Your task to perform on an android device: Go to Reddit.com Image 0: 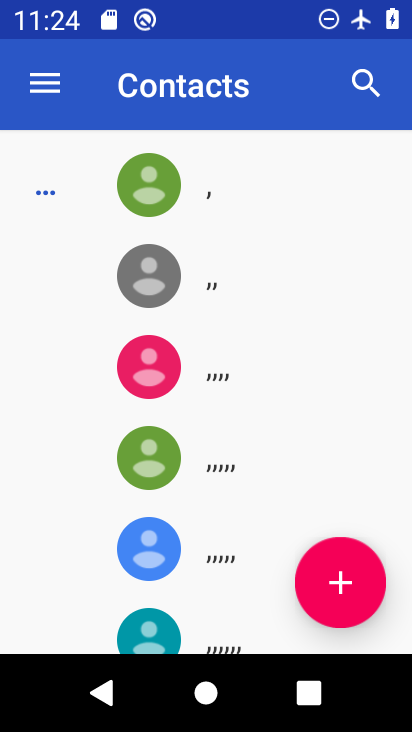
Step 0: press home button
Your task to perform on an android device: Go to Reddit.com Image 1: 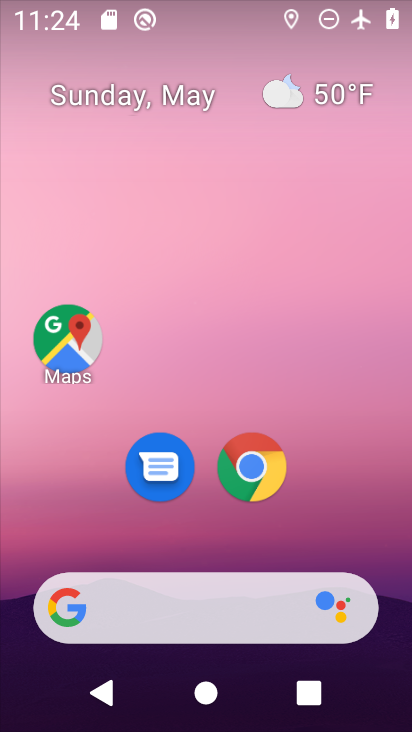
Step 1: click (240, 476)
Your task to perform on an android device: Go to Reddit.com Image 2: 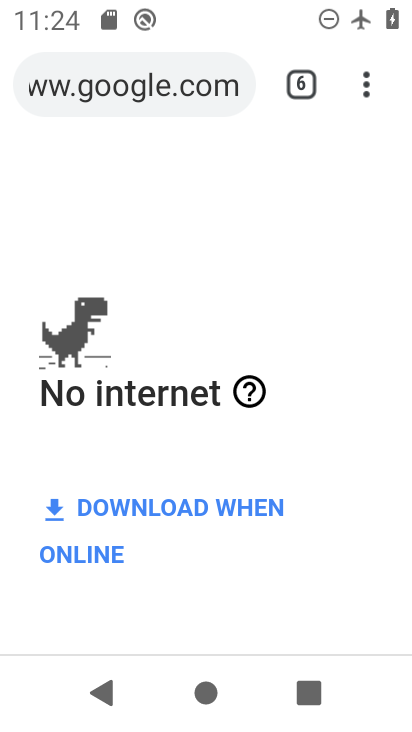
Step 2: click (289, 75)
Your task to perform on an android device: Go to Reddit.com Image 3: 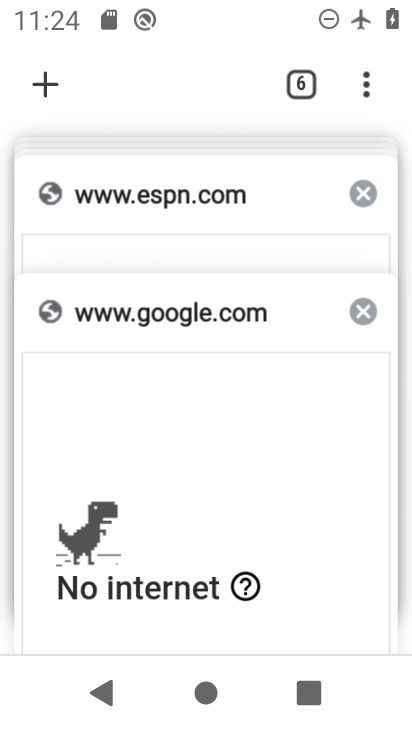
Step 3: click (354, 182)
Your task to perform on an android device: Go to Reddit.com Image 4: 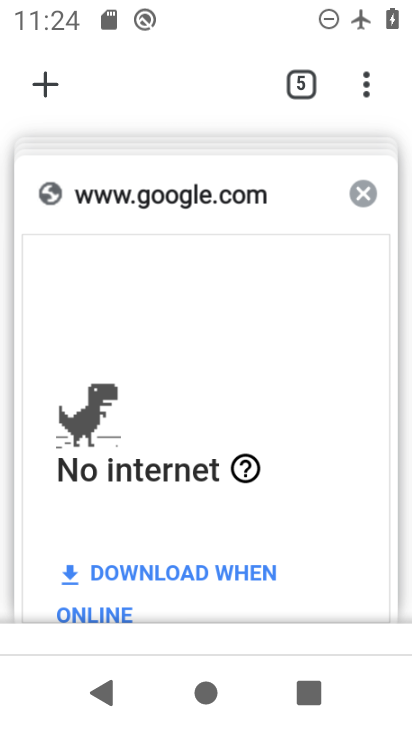
Step 4: click (354, 182)
Your task to perform on an android device: Go to Reddit.com Image 5: 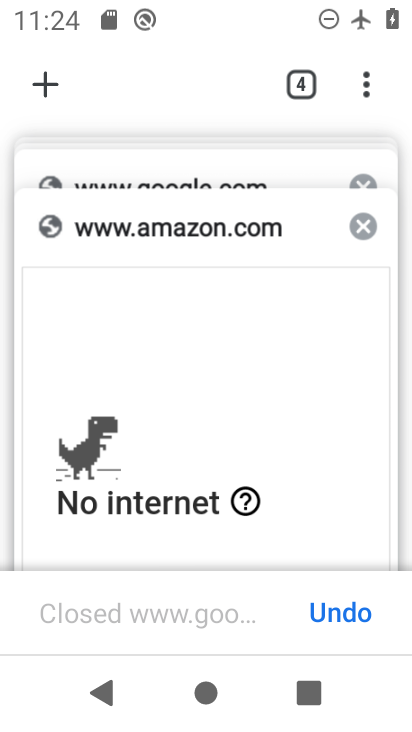
Step 5: click (356, 181)
Your task to perform on an android device: Go to Reddit.com Image 6: 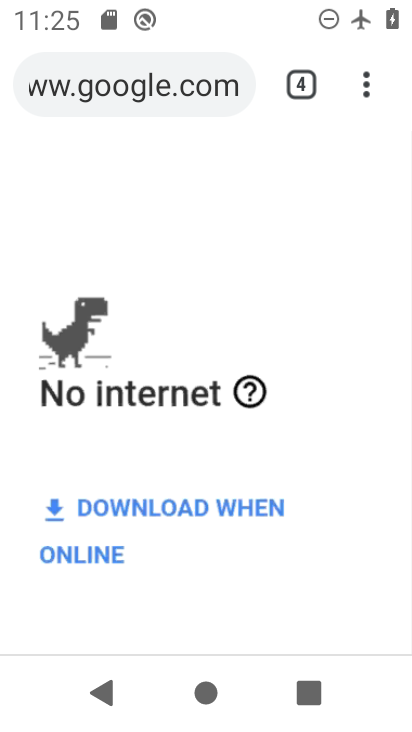
Step 6: click (356, 181)
Your task to perform on an android device: Go to Reddit.com Image 7: 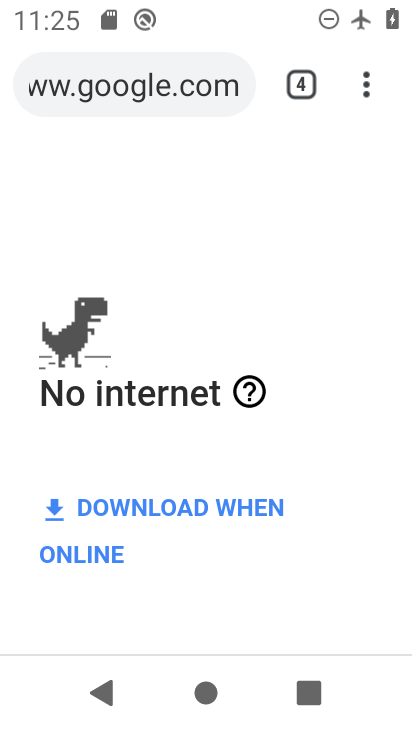
Step 7: click (300, 79)
Your task to perform on an android device: Go to Reddit.com Image 8: 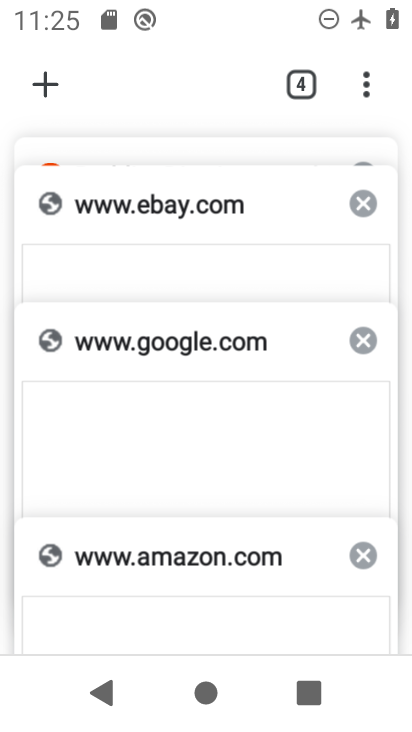
Step 8: click (38, 79)
Your task to perform on an android device: Go to Reddit.com Image 9: 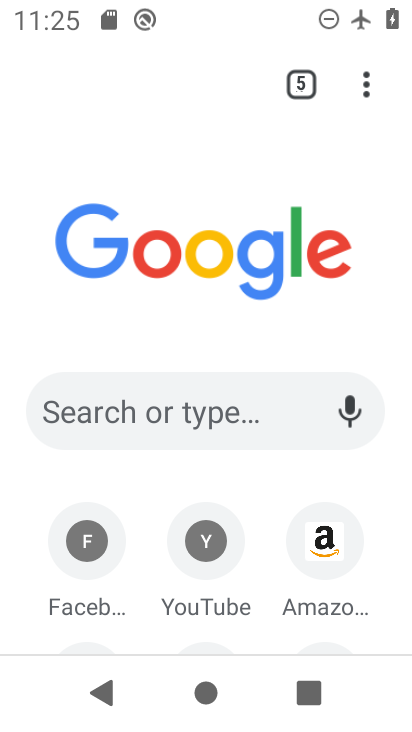
Step 9: click (231, 393)
Your task to perform on an android device: Go to Reddit.com Image 10: 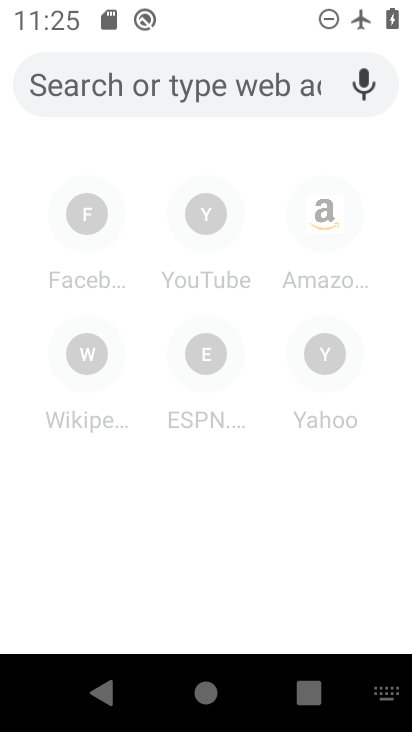
Step 10: type "Reddit.com"
Your task to perform on an android device: Go to Reddit.com Image 11: 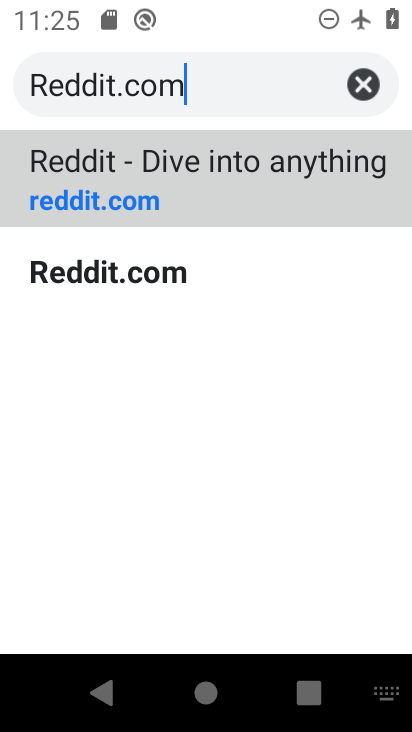
Step 11: click (132, 187)
Your task to perform on an android device: Go to Reddit.com Image 12: 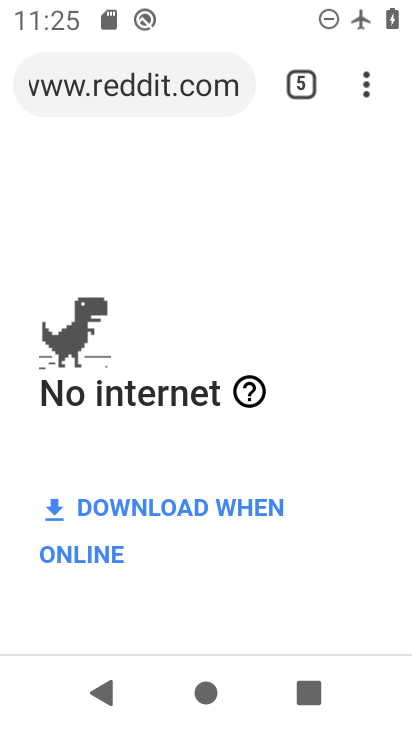
Step 12: task complete